Your task to perform on an android device: turn off notifications settings in the gmail app Image 0: 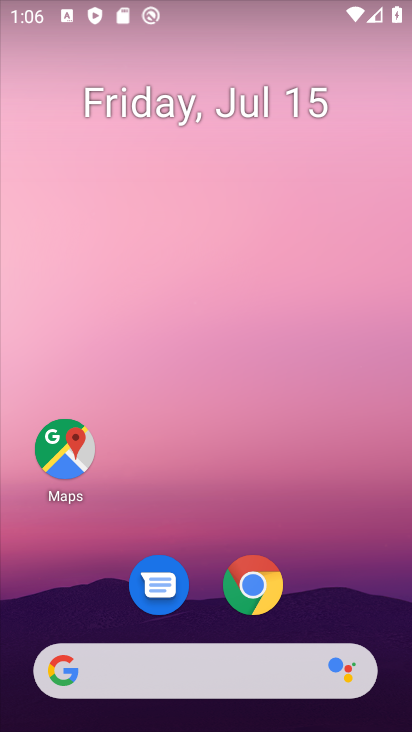
Step 0: drag from (358, 558) to (307, 48)
Your task to perform on an android device: turn off notifications settings in the gmail app Image 1: 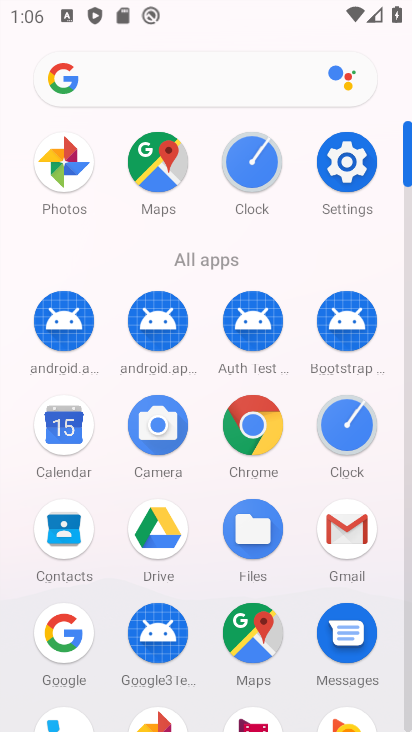
Step 1: click (357, 529)
Your task to perform on an android device: turn off notifications settings in the gmail app Image 2: 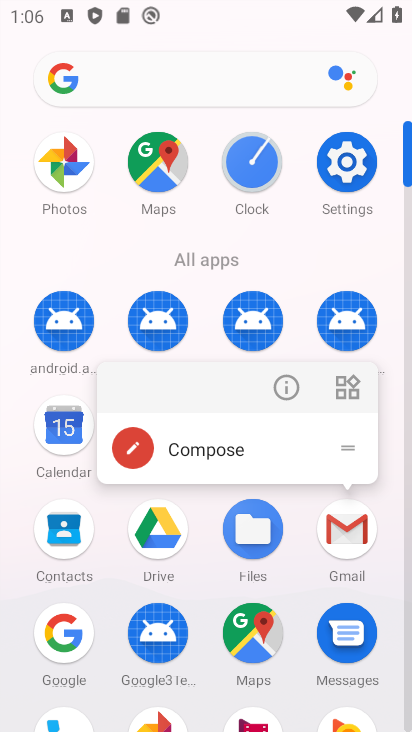
Step 2: click (359, 529)
Your task to perform on an android device: turn off notifications settings in the gmail app Image 3: 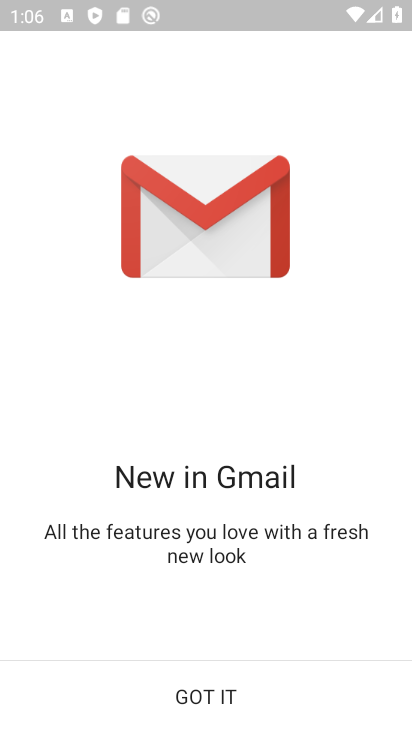
Step 3: click (249, 688)
Your task to perform on an android device: turn off notifications settings in the gmail app Image 4: 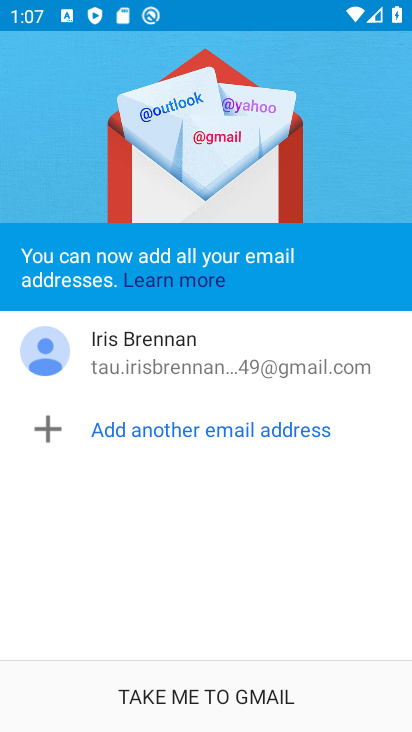
Step 4: click (249, 688)
Your task to perform on an android device: turn off notifications settings in the gmail app Image 5: 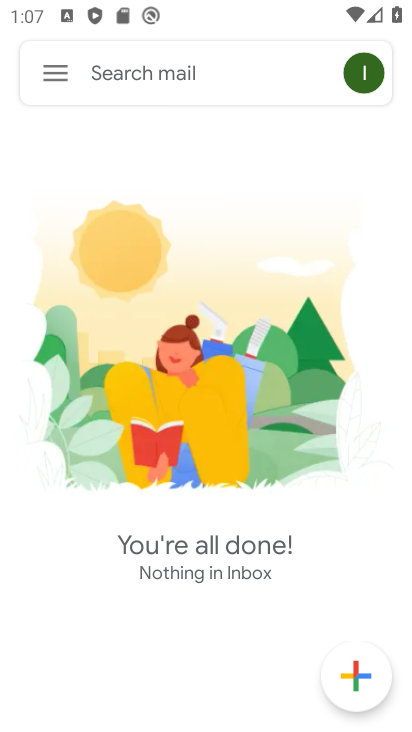
Step 5: click (57, 77)
Your task to perform on an android device: turn off notifications settings in the gmail app Image 6: 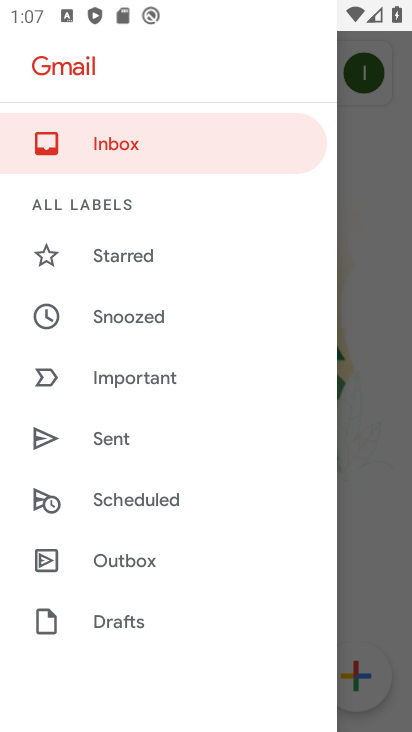
Step 6: drag from (157, 574) to (160, 50)
Your task to perform on an android device: turn off notifications settings in the gmail app Image 7: 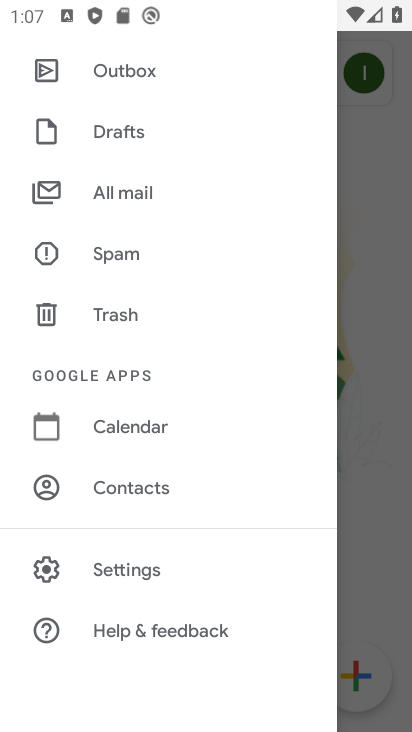
Step 7: click (155, 571)
Your task to perform on an android device: turn off notifications settings in the gmail app Image 8: 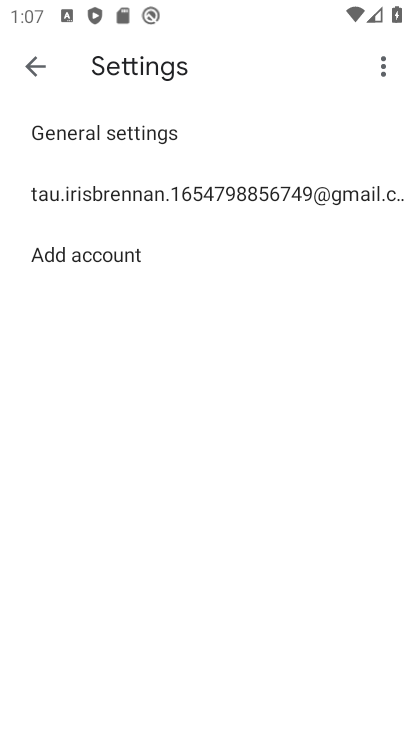
Step 8: click (182, 179)
Your task to perform on an android device: turn off notifications settings in the gmail app Image 9: 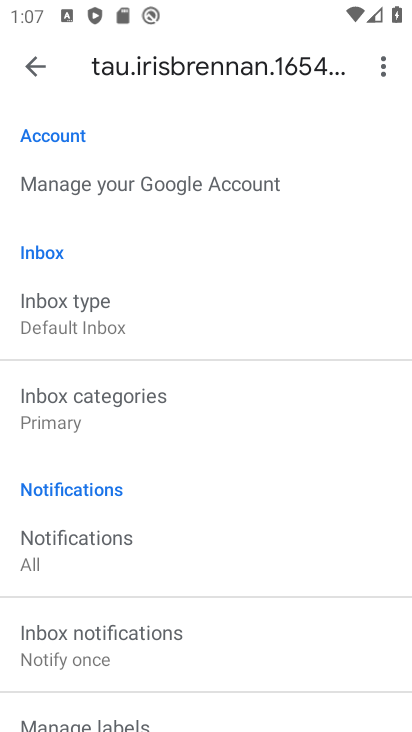
Step 9: drag from (218, 563) to (205, 96)
Your task to perform on an android device: turn off notifications settings in the gmail app Image 10: 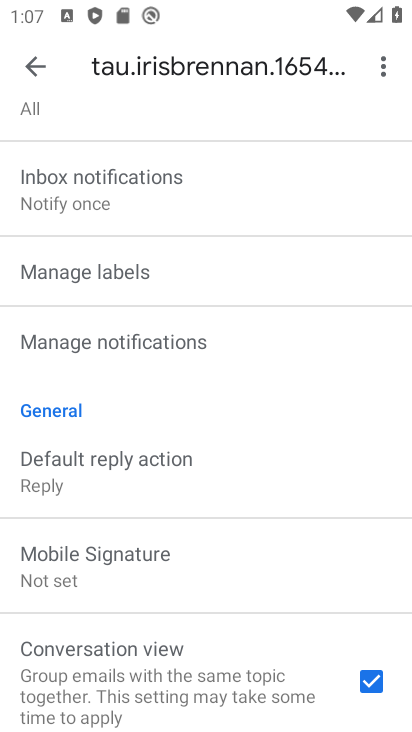
Step 10: click (185, 329)
Your task to perform on an android device: turn off notifications settings in the gmail app Image 11: 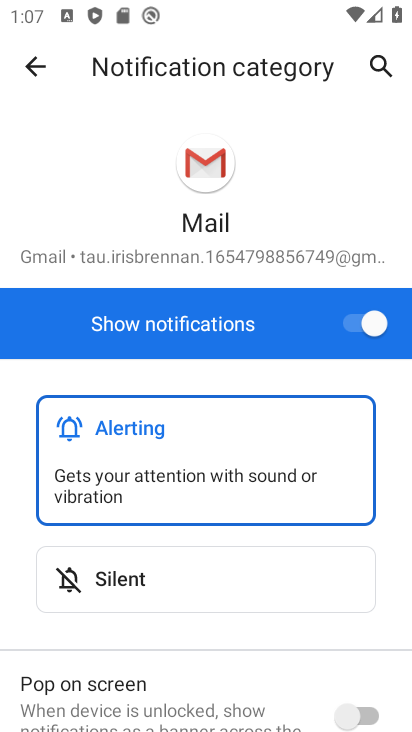
Step 11: click (369, 319)
Your task to perform on an android device: turn off notifications settings in the gmail app Image 12: 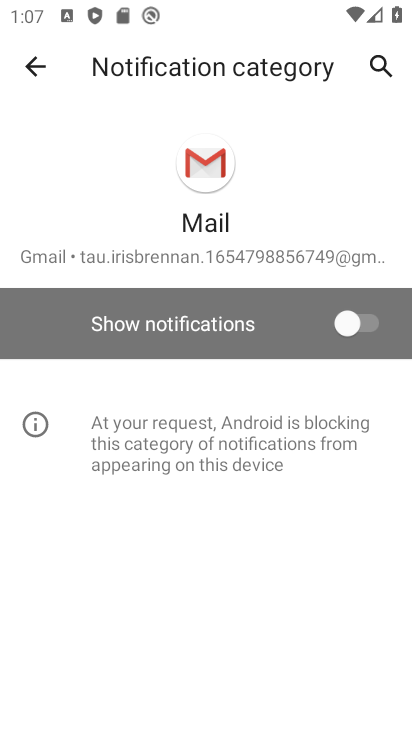
Step 12: task complete